Your task to perform on an android device: turn off picture-in-picture Image 0: 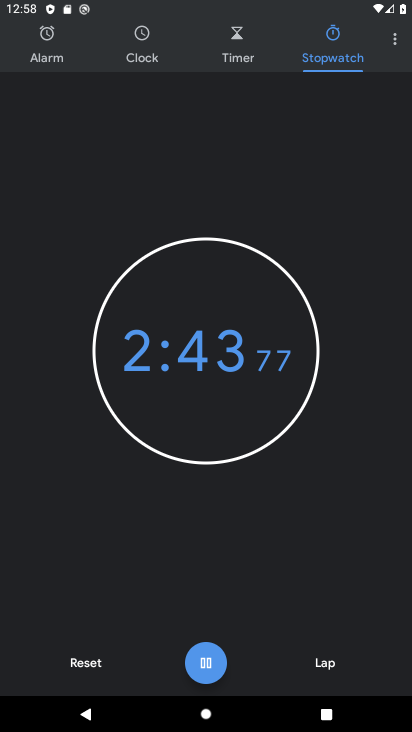
Step 0: press home button
Your task to perform on an android device: turn off picture-in-picture Image 1: 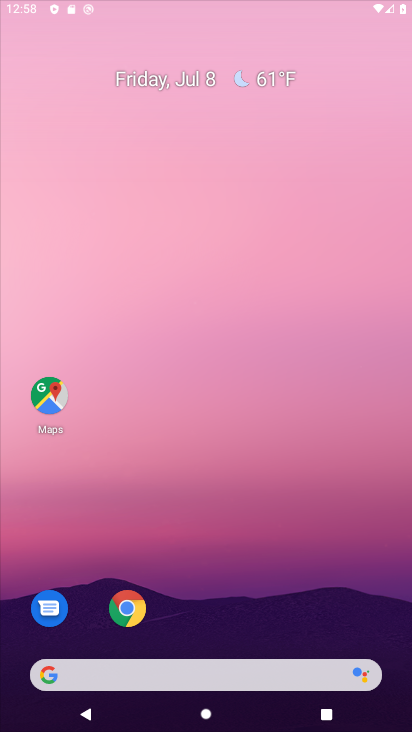
Step 1: click (243, 631)
Your task to perform on an android device: turn off picture-in-picture Image 2: 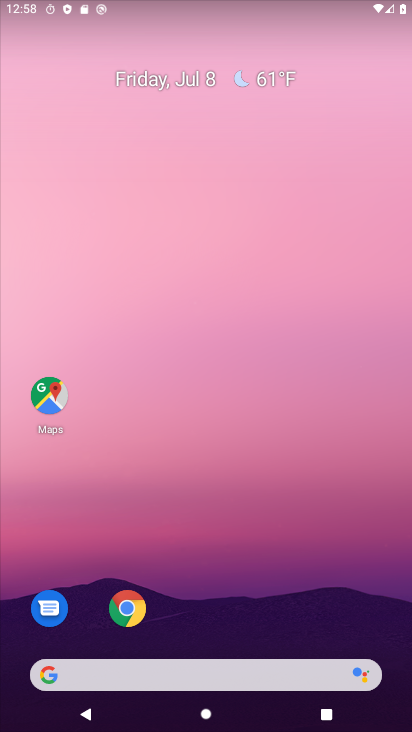
Step 2: click (125, 608)
Your task to perform on an android device: turn off picture-in-picture Image 3: 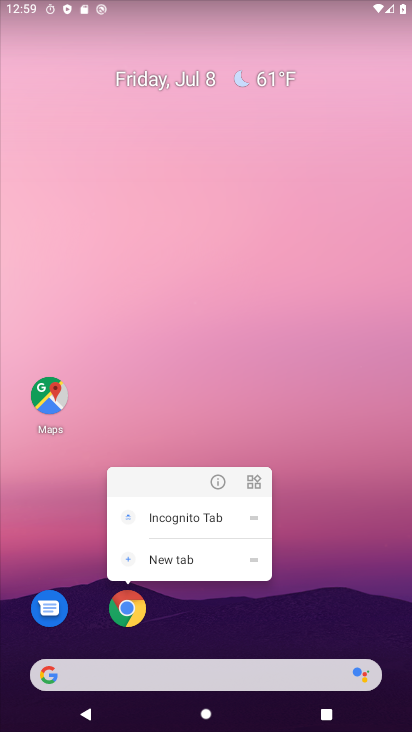
Step 3: click (221, 484)
Your task to perform on an android device: turn off picture-in-picture Image 4: 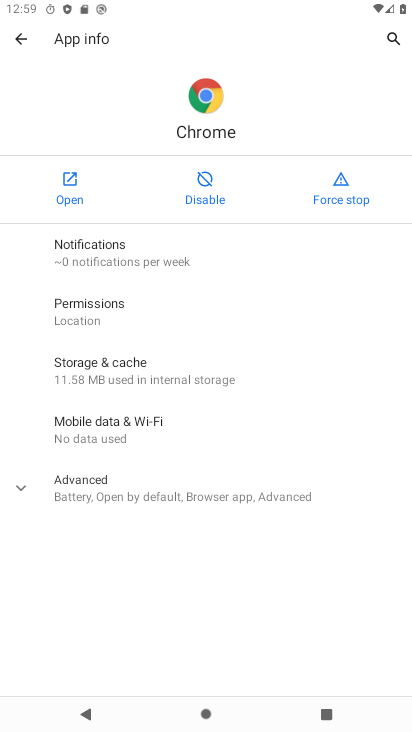
Step 4: click (141, 483)
Your task to perform on an android device: turn off picture-in-picture Image 5: 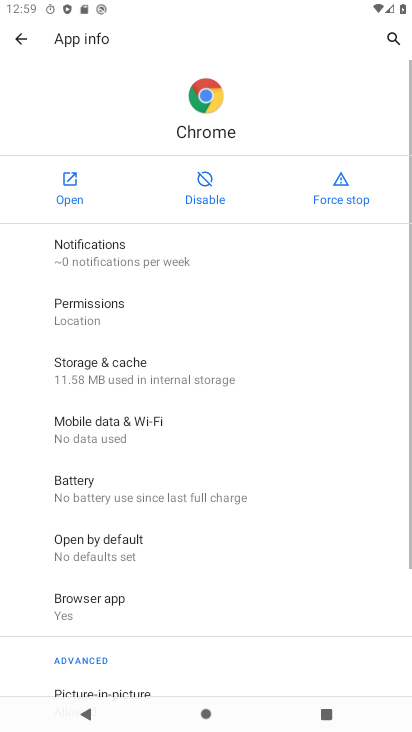
Step 5: drag from (120, 657) to (146, 238)
Your task to perform on an android device: turn off picture-in-picture Image 6: 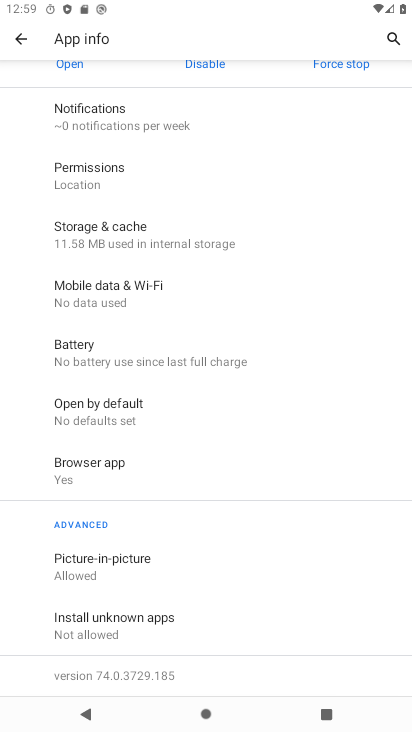
Step 6: click (132, 552)
Your task to perform on an android device: turn off picture-in-picture Image 7: 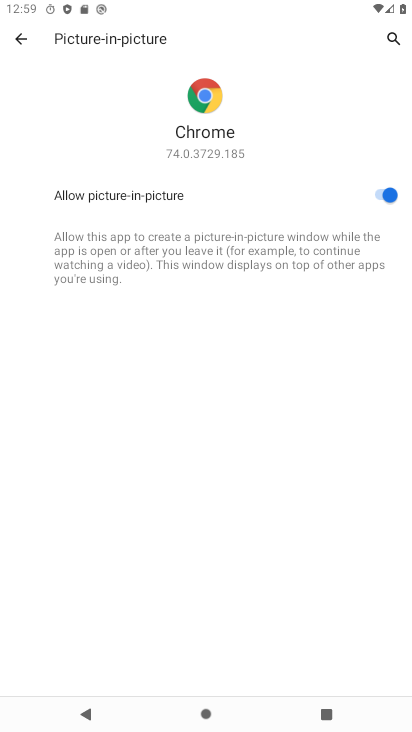
Step 7: click (384, 202)
Your task to perform on an android device: turn off picture-in-picture Image 8: 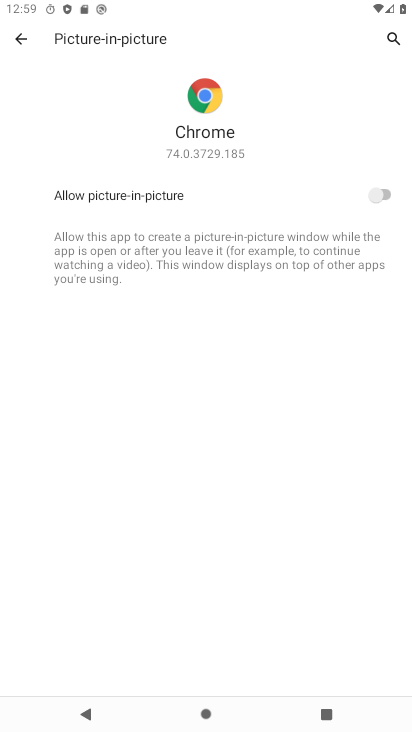
Step 8: task complete